Your task to perform on an android device: Open the stopwatch Image 0: 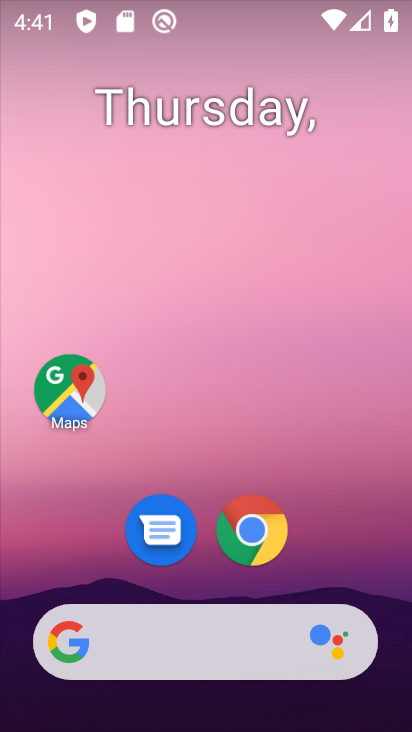
Step 0: drag from (337, 581) to (326, 0)
Your task to perform on an android device: Open the stopwatch Image 1: 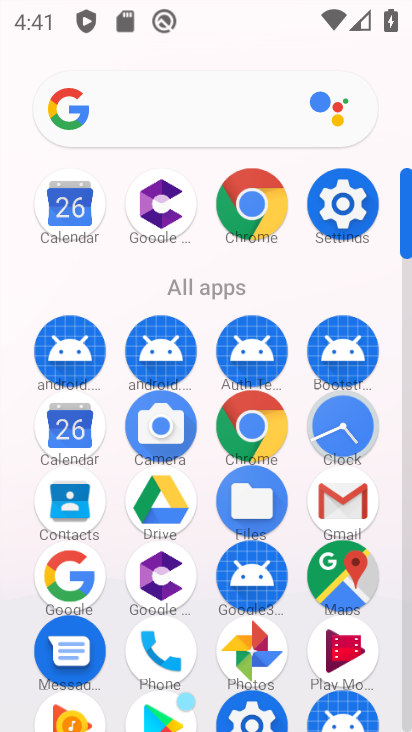
Step 1: click (342, 432)
Your task to perform on an android device: Open the stopwatch Image 2: 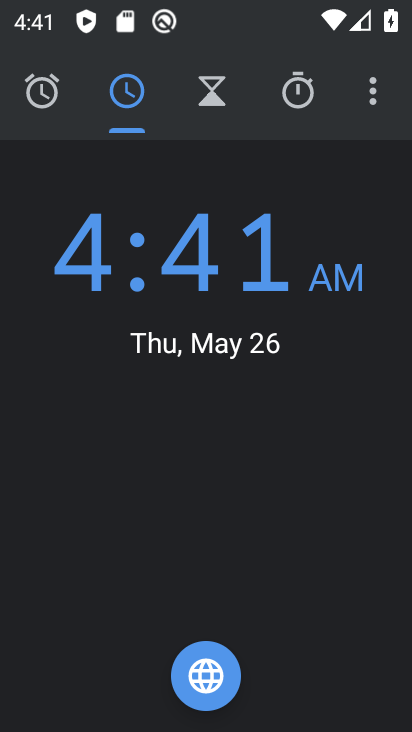
Step 2: click (296, 76)
Your task to perform on an android device: Open the stopwatch Image 3: 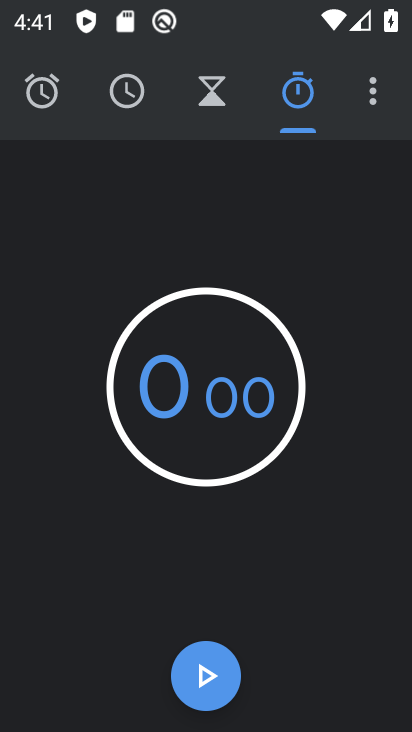
Step 3: click (206, 670)
Your task to perform on an android device: Open the stopwatch Image 4: 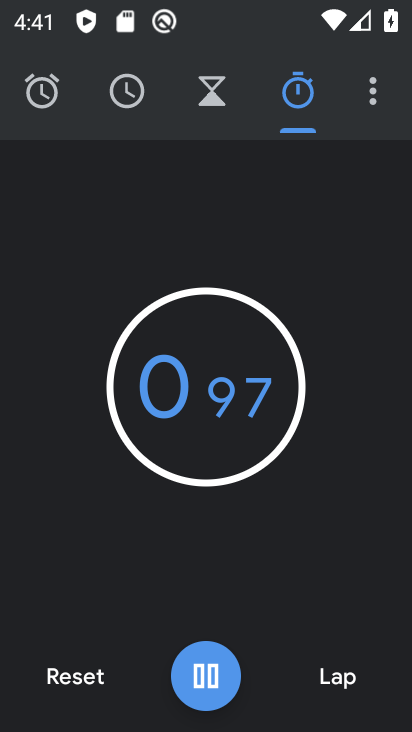
Step 4: task complete